Your task to perform on an android device: open chrome and create a bookmark for the current page Image 0: 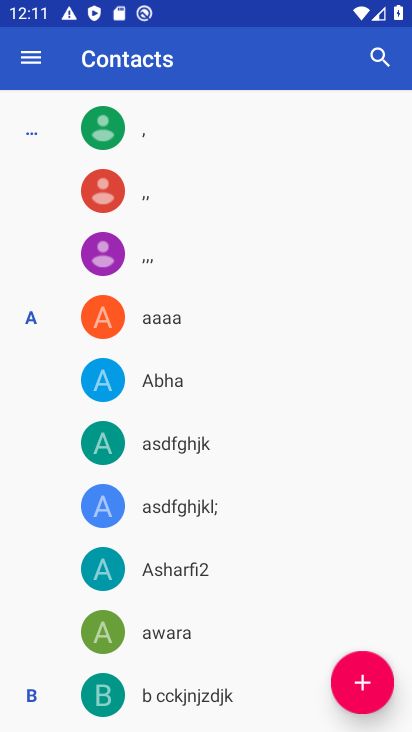
Step 0: press home button
Your task to perform on an android device: open chrome and create a bookmark for the current page Image 1: 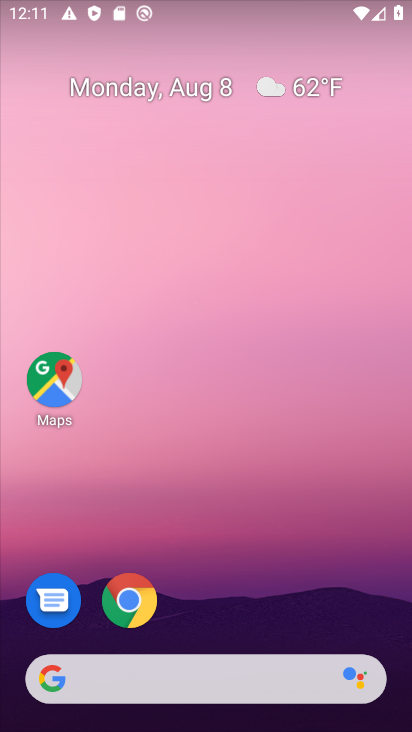
Step 1: click (133, 618)
Your task to perform on an android device: open chrome and create a bookmark for the current page Image 2: 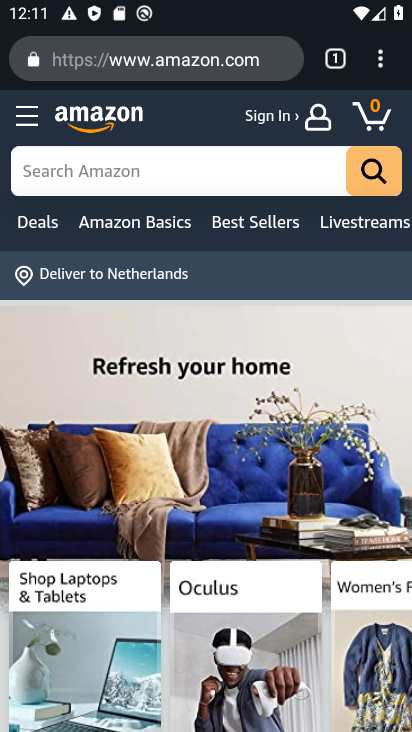
Step 2: click (378, 57)
Your task to perform on an android device: open chrome and create a bookmark for the current page Image 3: 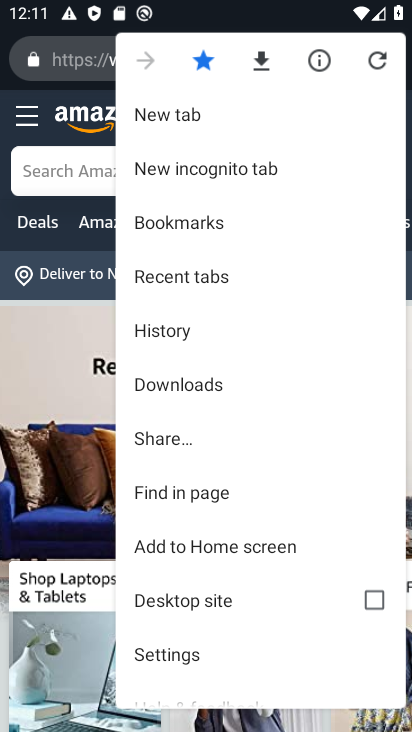
Step 3: click (69, 135)
Your task to perform on an android device: open chrome and create a bookmark for the current page Image 4: 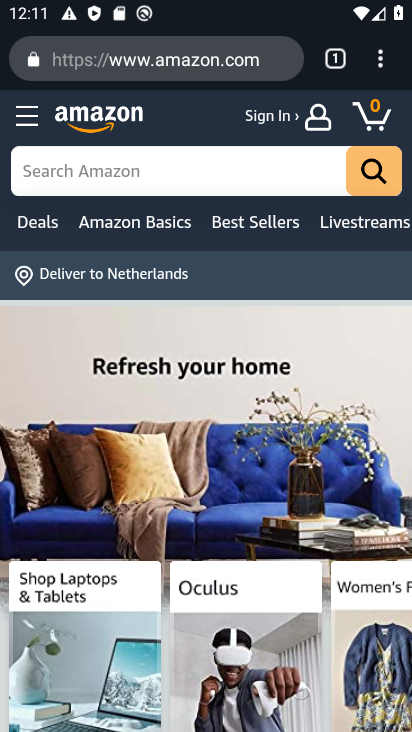
Step 4: click (337, 53)
Your task to perform on an android device: open chrome and create a bookmark for the current page Image 5: 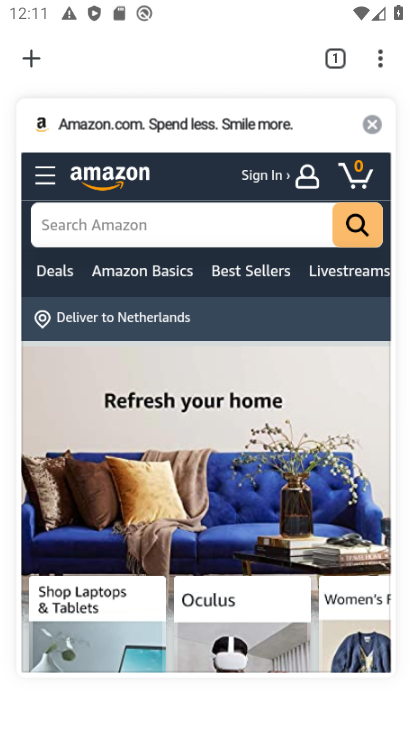
Step 5: click (28, 57)
Your task to perform on an android device: open chrome and create a bookmark for the current page Image 6: 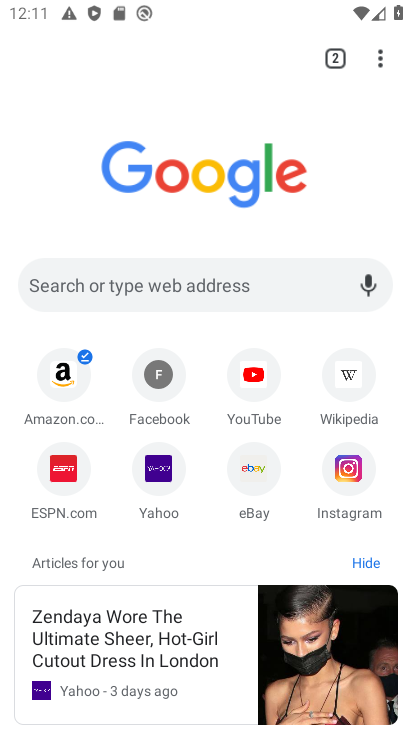
Step 6: drag from (175, 568) to (179, 33)
Your task to perform on an android device: open chrome and create a bookmark for the current page Image 7: 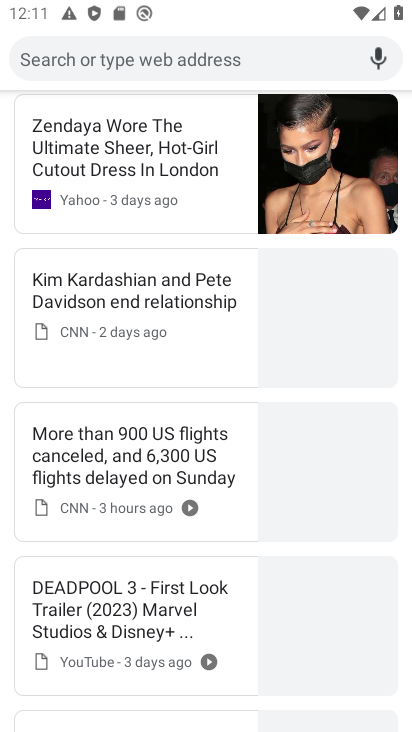
Step 7: drag from (205, 535) to (208, 224)
Your task to perform on an android device: open chrome and create a bookmark for the current page Image 8: 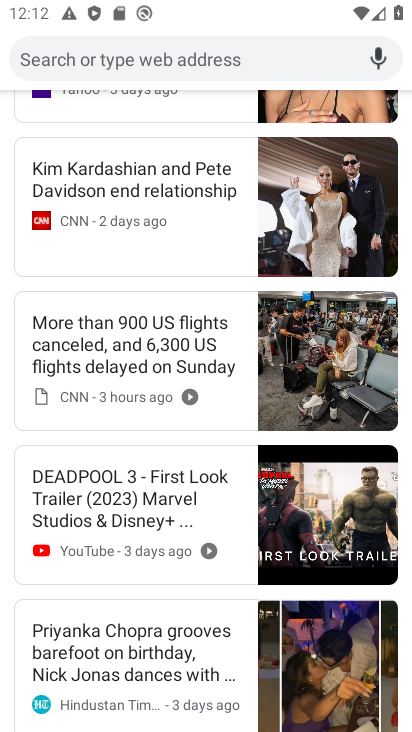
Step 8: click (97, 387)
Your task to perform on an android device: open chrome and create a bookmark for the current page Image 9: 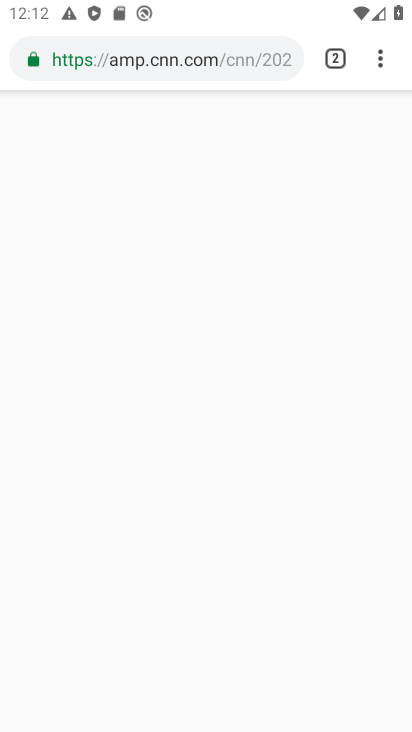
Step 9: click (387, 57)
Your task to perform on an android device: open chrome and create a bookmark for the current page Image 10: 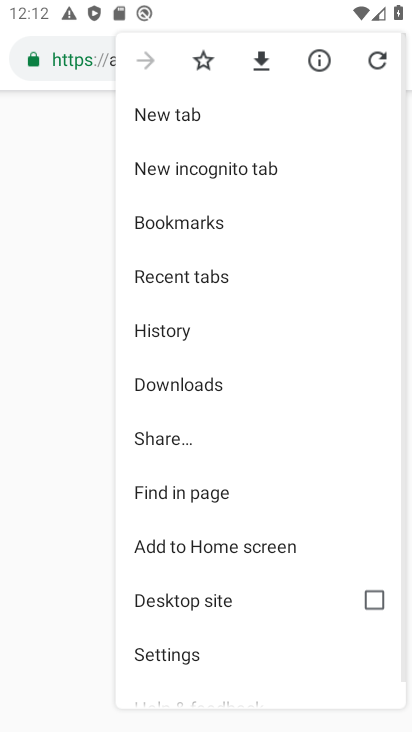
Step 10: click (197, 70)
Your task to perform on an android device: open chrome and create a bookmark for the current page Image 11: 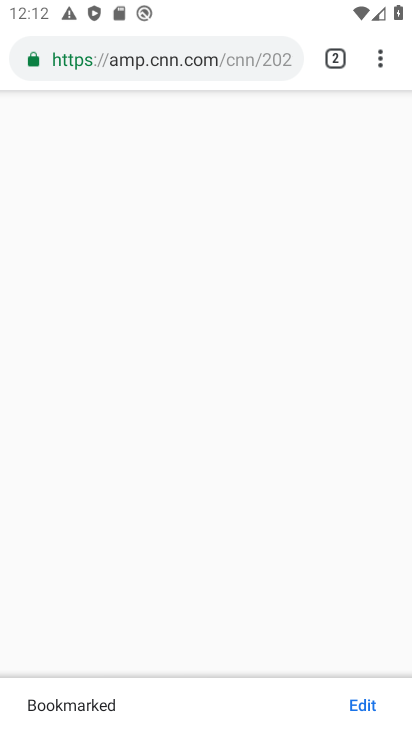
Step 11: task complete